Your task to perform on an android device: Go to wifi settings Image 0: 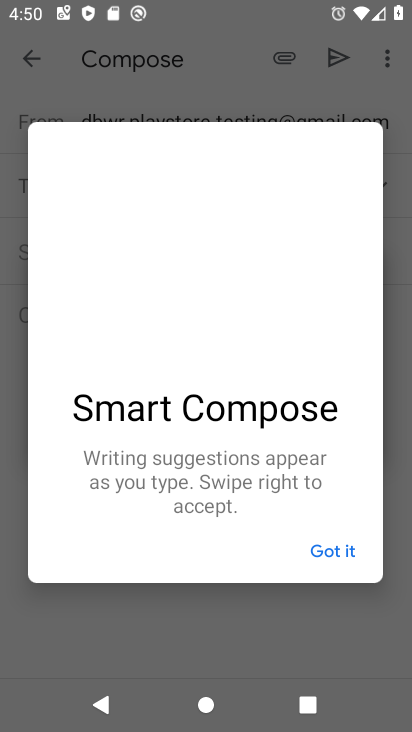
Step 0: press home button
Your task to perform on an android device: Go to wifi settings Image 1: 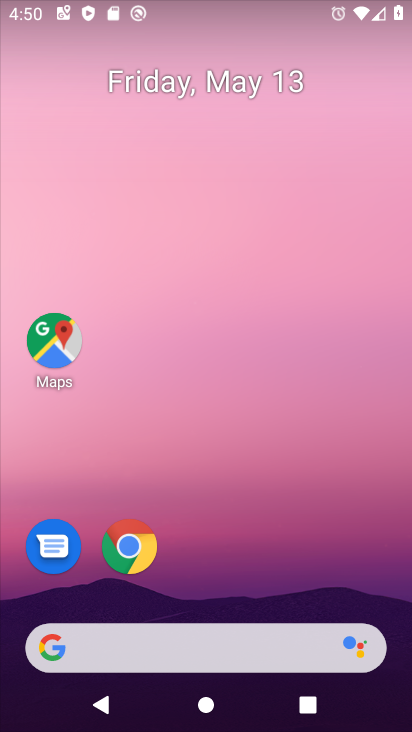
Step 1: drag from (219, 544) to (257, 15)
Your task to perform on an android device: Go to wifi settings Image 2: 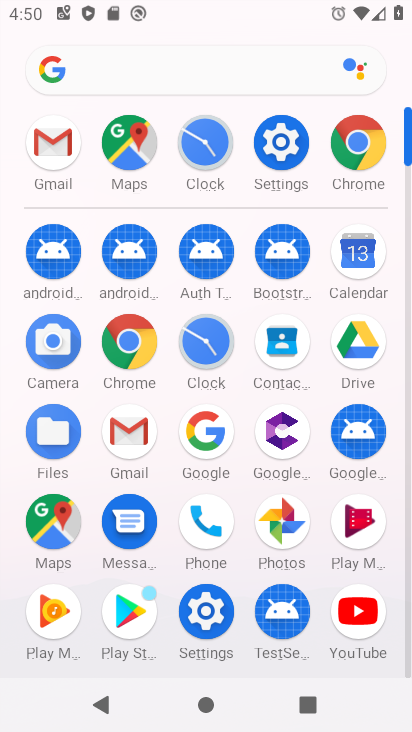
Step 2: click (273, 170)
Your task to perform on an android device: Go to wifi settings Image 3: 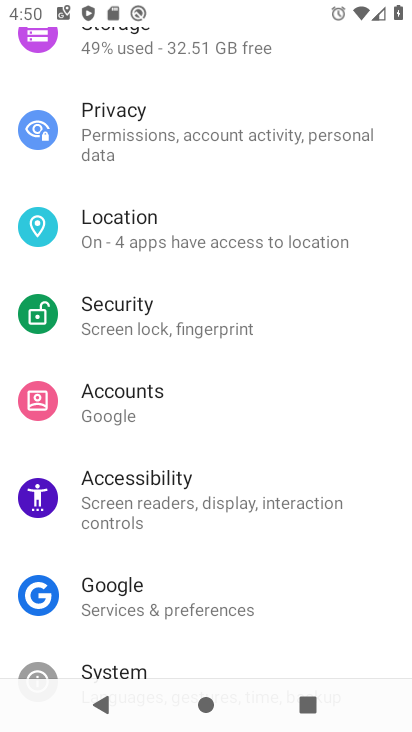
Step 3: drag from (241, 266) to (209, 618)
Your task to perform on an android device: Go to wifi settings Image 4: 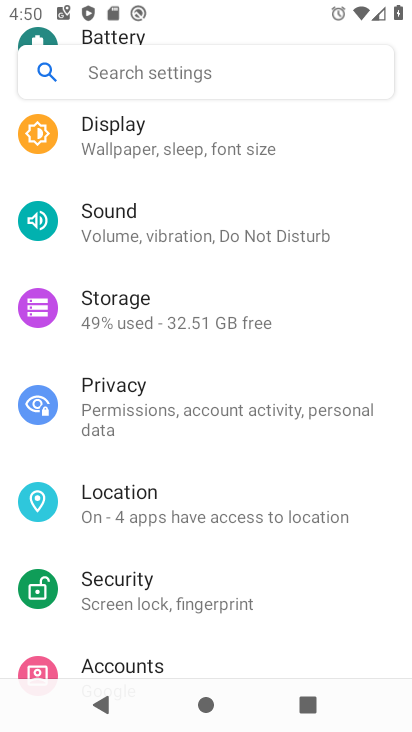
Step 4: drag from (245, 249) to (230, 720)
Your task to perform on an android device: Go to wifi settings Image 5: 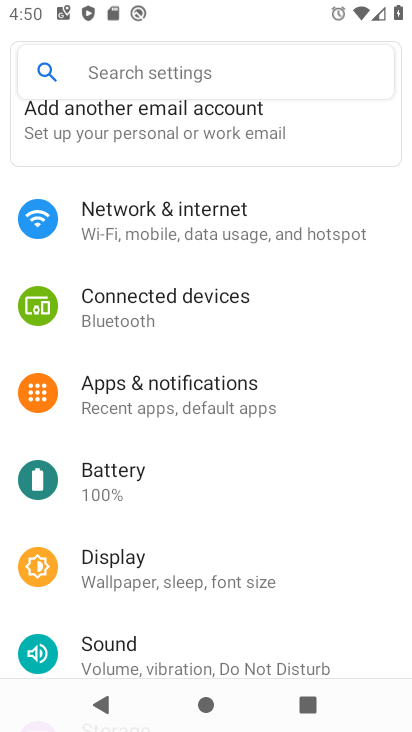
Step 5: click (186, 242)
Your task to perform on an android device: Go to wifi settings Image 6: 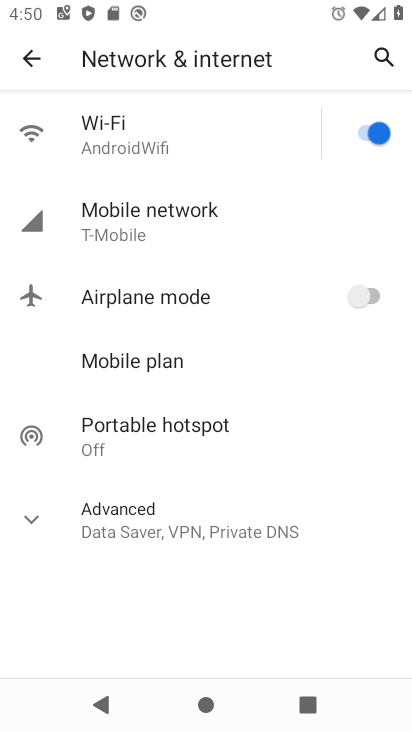
Step 6: click (137, 151)
Your task to perform on an android device: Go to wifi settings Image 7: 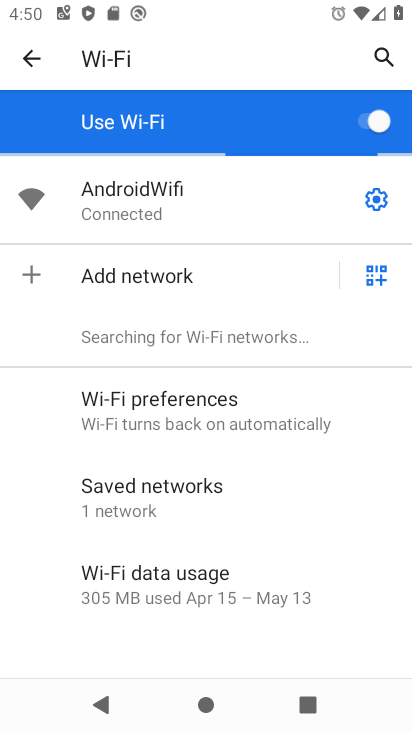
Step 7: task complete